Your task to perform on an android device: clear all cookies in the chrome app Image 0: 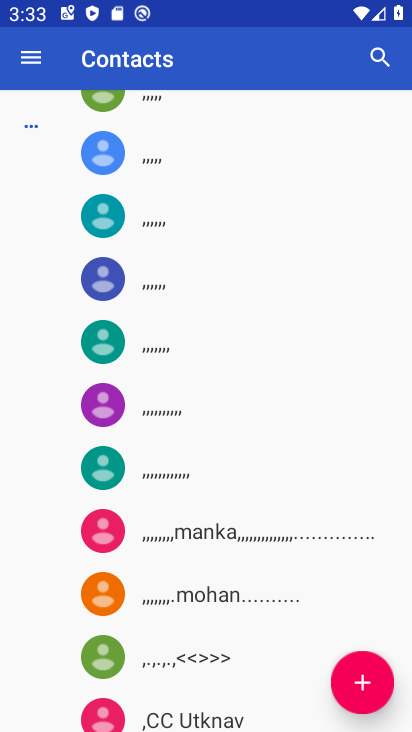
Step 0: press back button
Your task to perform on an android device: clear all cookies in the chrome app Image 1: 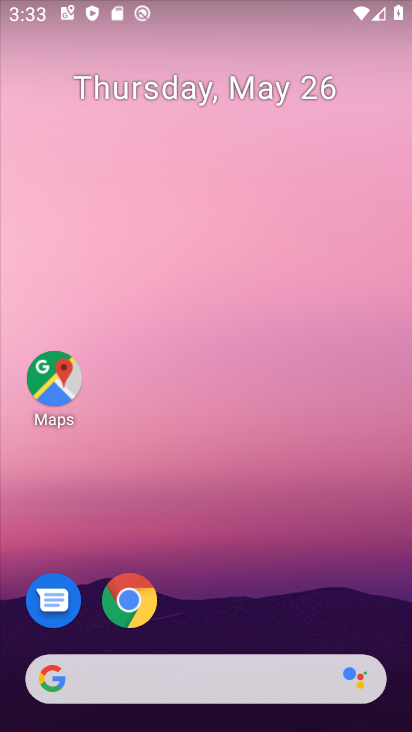
Step 1: drag from (279, 581) to (211, 9)
Your task to perform on an android device: clear all cookies in the chrome app Image 2: 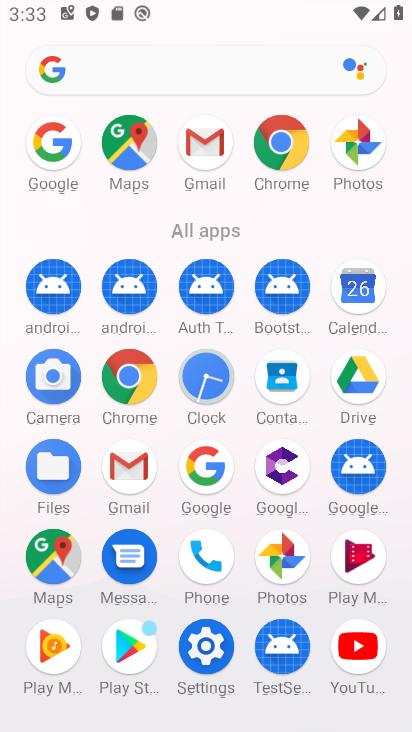
Step 2: click (127, 373)
Your task to perform on an android device: clear all cookies in the chrome app Image 3: 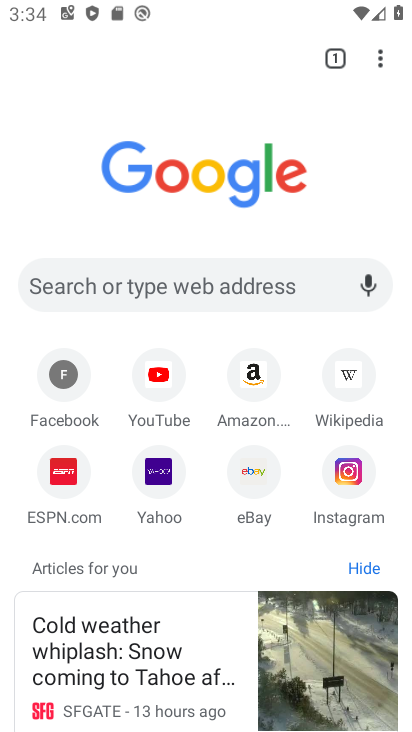
Step 3: drag from (378, 59) to (220, 560)
Your task to perform on an android device: clear all cookies in the chrome app Image 4: 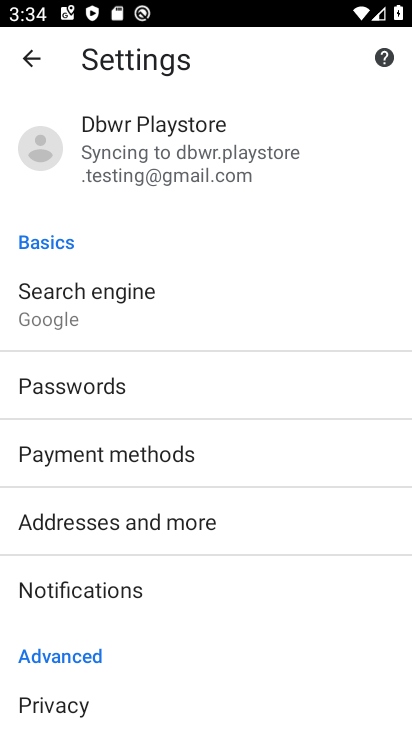
Step 4: drag from (292, 562) to (253, 192)
Your task to perform on an android device: clear all cookies in the chrome app Image 5: 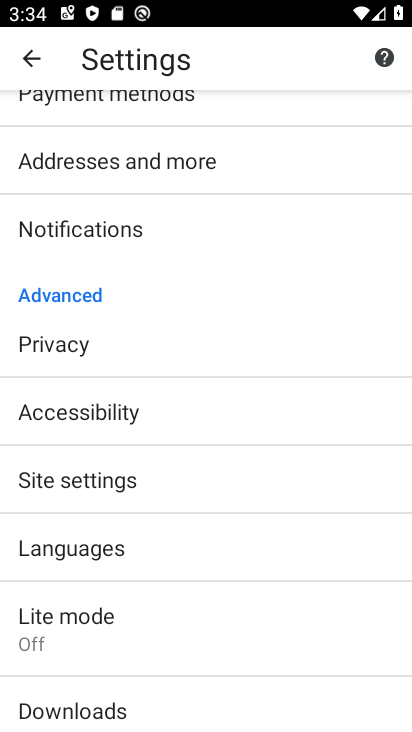
Step 5: drag from (259, 518) to (210, 122)
Your task to perform on an android device: clear all cookies in the chrome app Image 6: 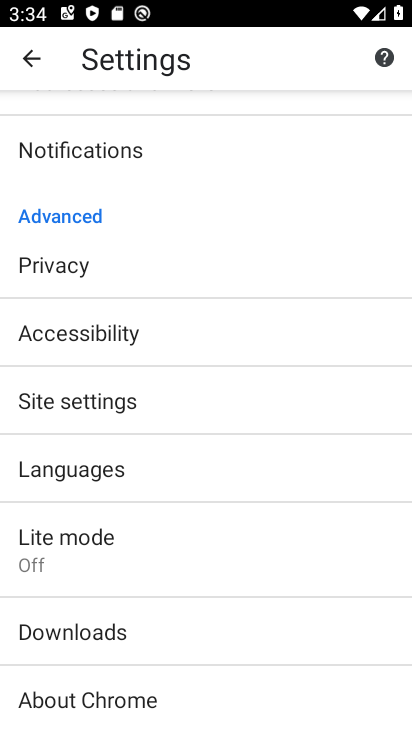
Step 6: drag from (237, 565) to (220, 135)
Your task to perform on an android device: clear all cookies in the chrome app Image 7: 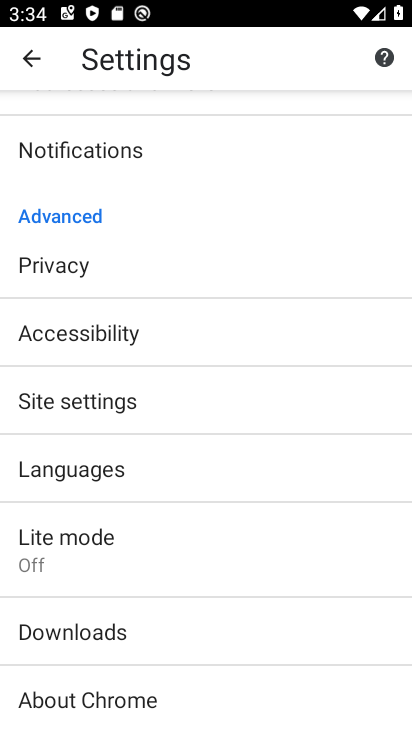
Step 7: drag from (280, 625) to (260, 196)
Your task to perform on an android device: clear all cookies in the chrome app Image 8: 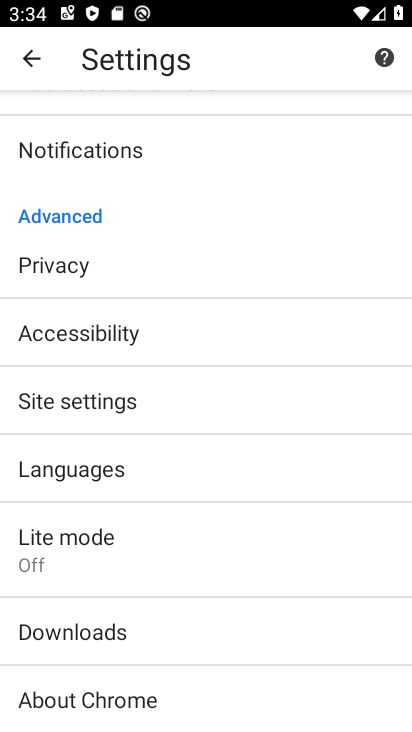
Step 8: click (111, 257)
Your task to perform on an android device: clear all cookies in the chrome app Image 9: 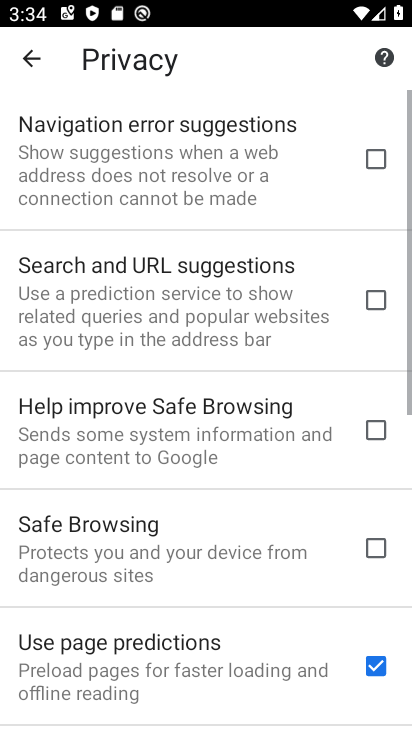
Step 9: drag from (247, 620) to (238, 140)
Your task to perform on an android device: clear all cookies in the chrome app Image 10: 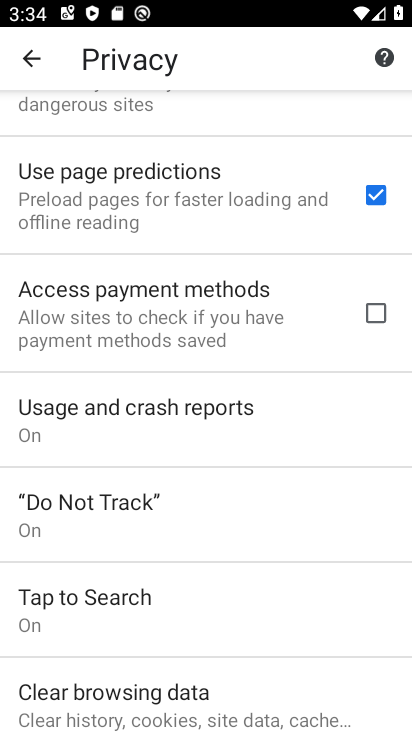
Step 10: click (170, 708)
Your task to perform on an android device: clear all cookies in the chrome app Image 11: 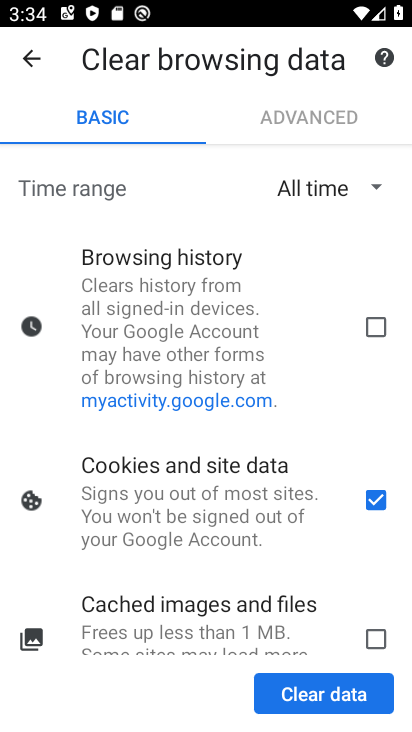
Step 11: click (308, 683)
Your task to perform on an android device: clear all cookies in the chrome app Image 12: 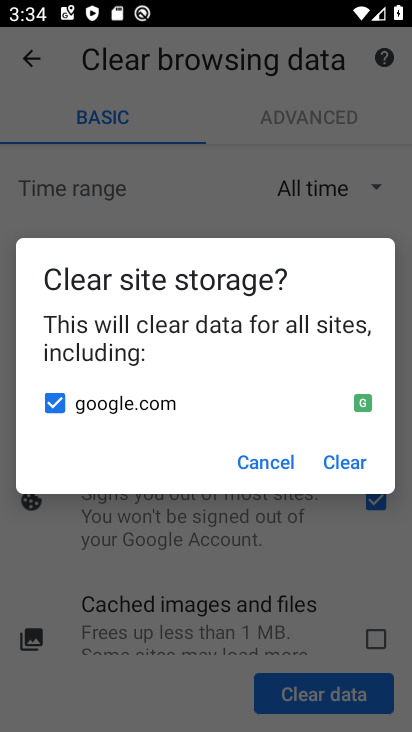
Step 12: click (339, 459)
Your task to perform on an android device: clear all cookies in the chrome app Image 13: 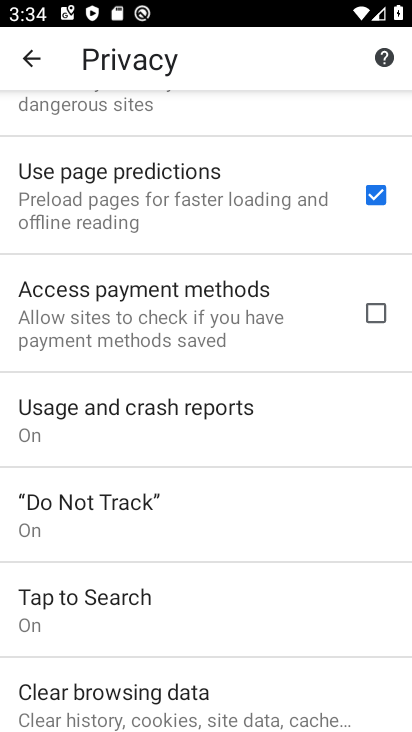
Step 13: task complete